Your task to perform on an android device: Go to Maps Image 0: 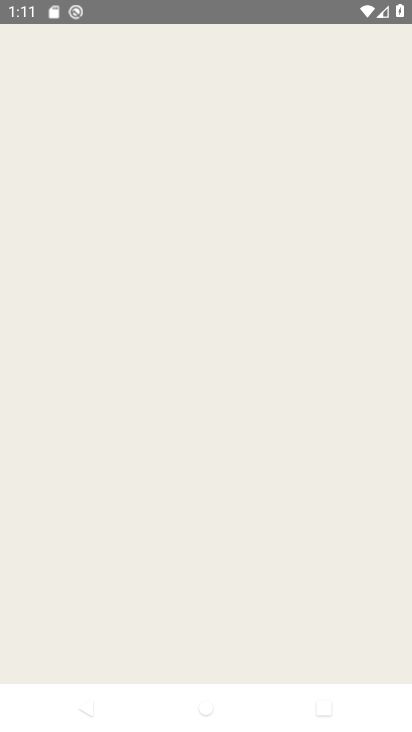
Step 0: click (321, 166)
Your task to perform on an android device: Go to Maps Image 1: 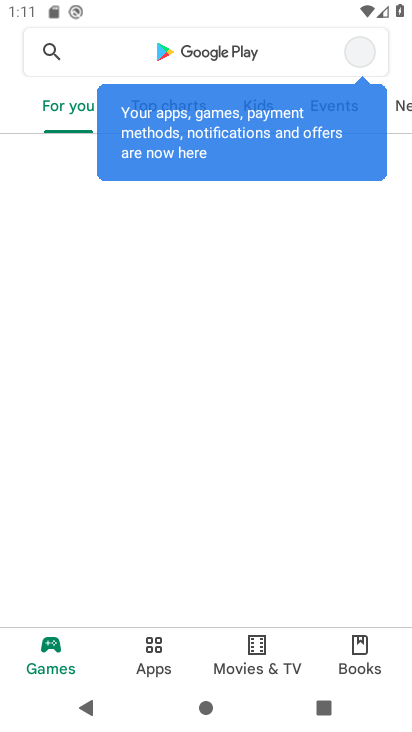
Step 1: press home button
Your task to perform on an android device: Go to Maps Image 2: 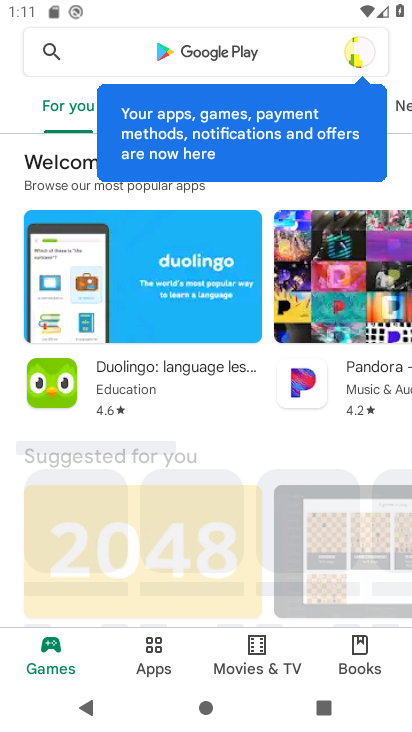
Step 2: press home button
Your task to perform on an android device: Go to Maps Image 3: 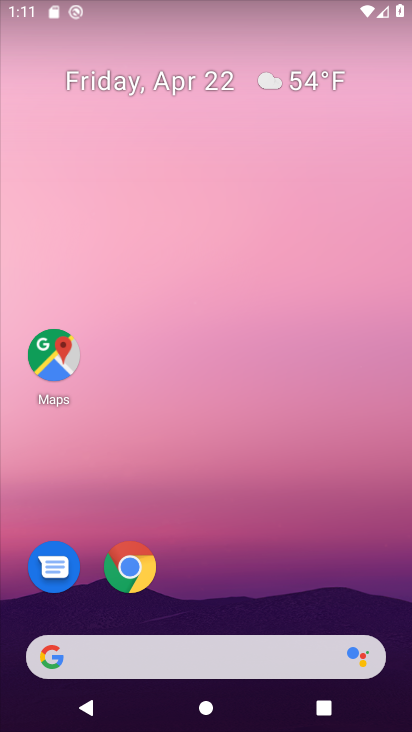
Step 3: drag from (246, 676) to (240, 221)
Your task to perform on an android device: Go to Maps Image 4: 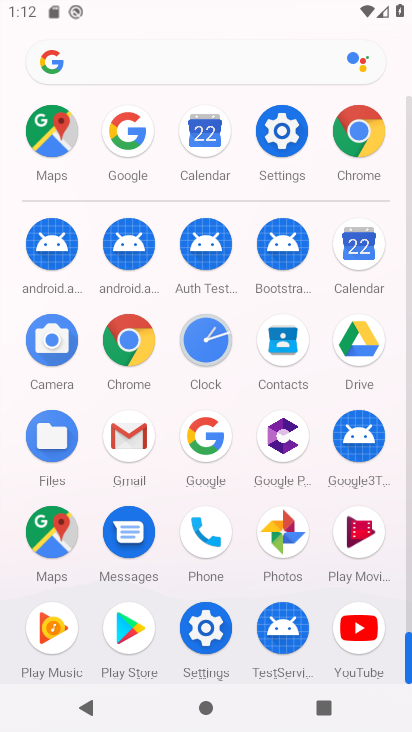
Step 4: click (48, 150)
Your task to perform on an android device: Go to Maps Image 5: 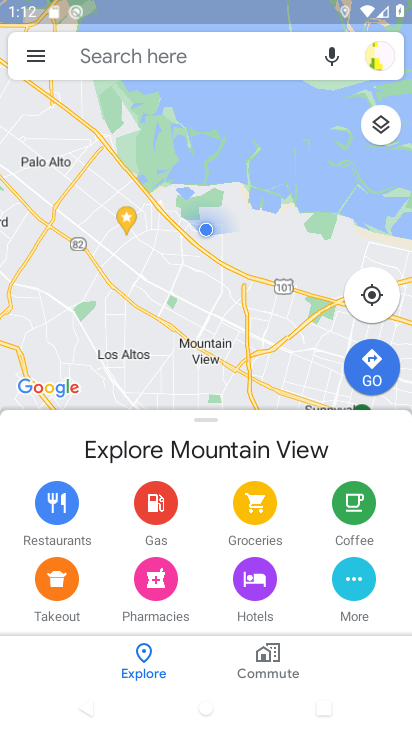
Step 5: task complete